Your task to perform on an android device: Check the news Image 0: 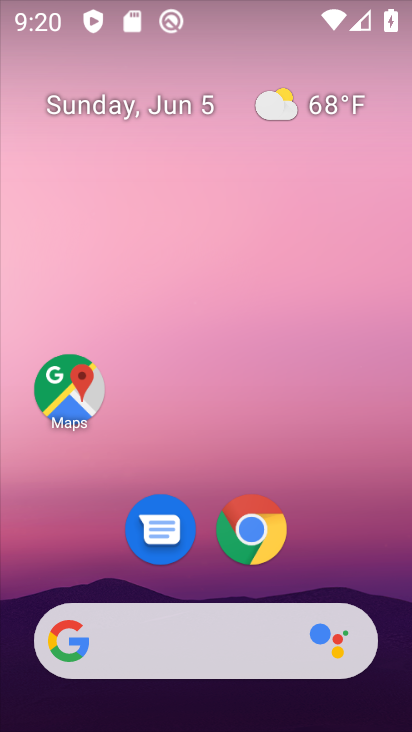
Step 0: click (212, 631)
Your task to perform on an android device: Check the news Image 1: 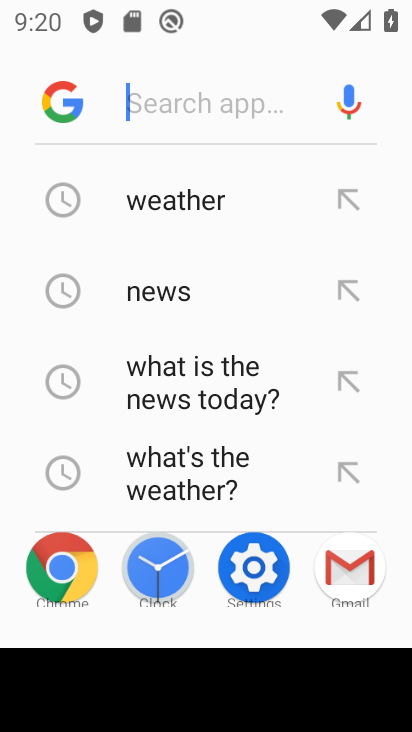
Step 1: click (181, 279)
Your task to perform on an android device: Check the news Image 2: 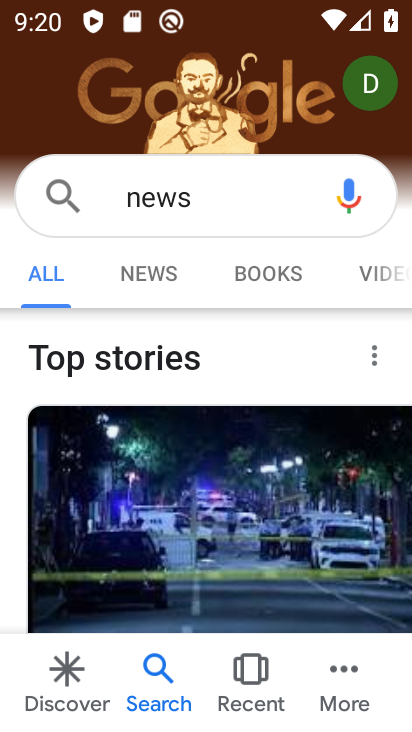
Step 2: task complete